Your task to perform on an android device: Show me popular games on the Play Store Image 0: 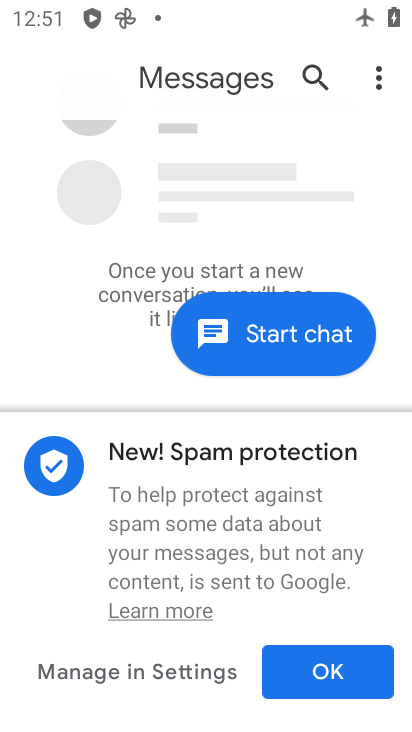
Step 0: press home button
Your task to perform on an android device: Show me popular games on the Play Store Image 1: 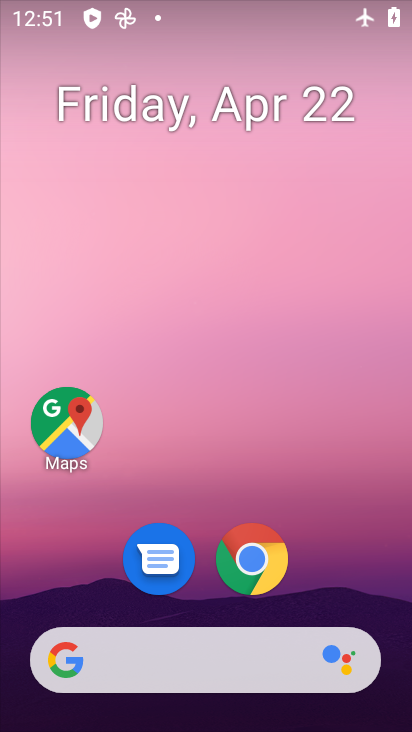
Step 1: drag from (372, 578) to (367, 140)
Your task to perform on an android device: Show me popular games on the Play Store Image 2: 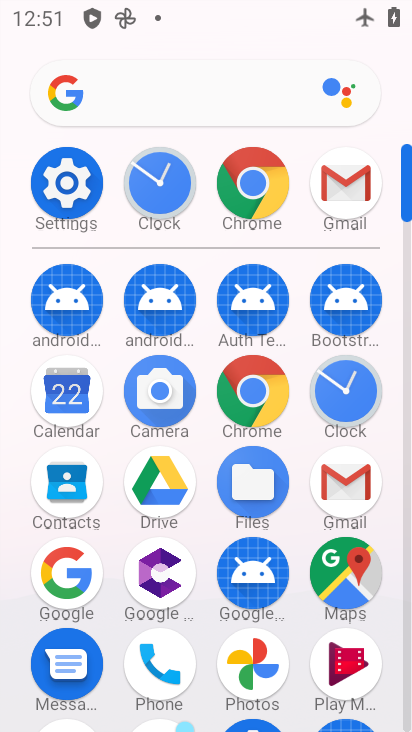
Step 2: drag from (396, 608) to (389, 362)
Your task to perform on an android device: Show me popular games on the Play Store Image 3: 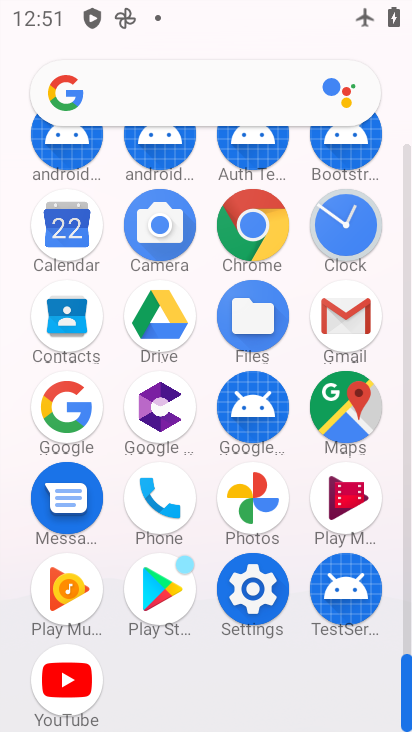
Step 3: click (155, 597)
Your task to perform on an android device: Show me popular games on the Play Store Image 4: 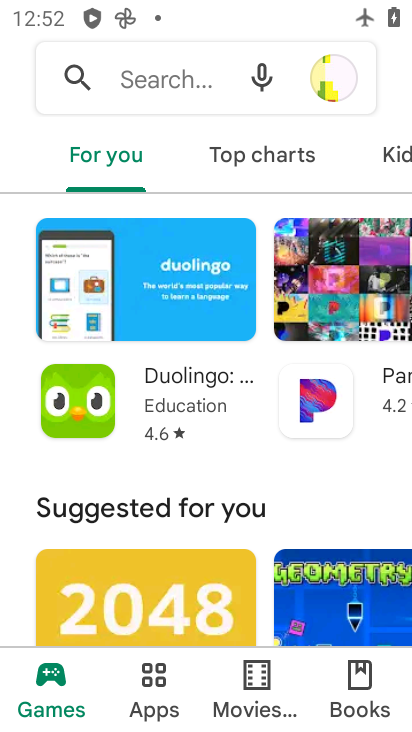
Step 4: task complete